Your task to perform on an android device: Open battery settings Image 0: 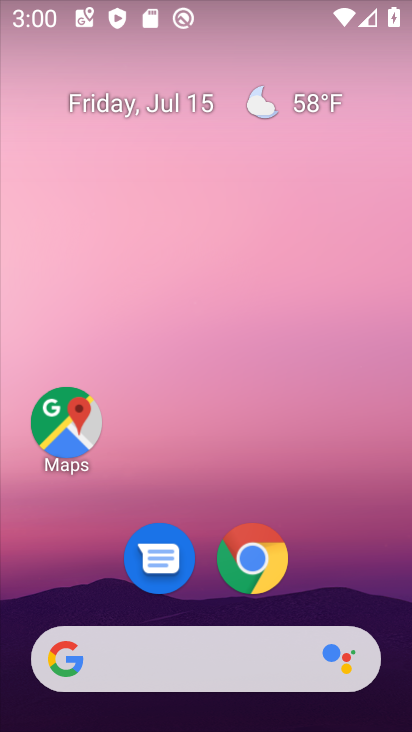
Step 0: drag from (358, 579) to (365, 98)
Your task to perform on an android device: Open battery settings Image 1: 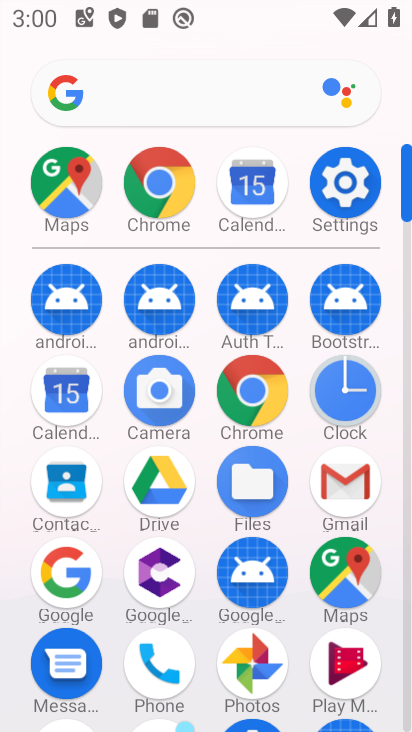
Step 1: click (353, 198)
Your task to perform on an android device: Open battery settings Image 2: 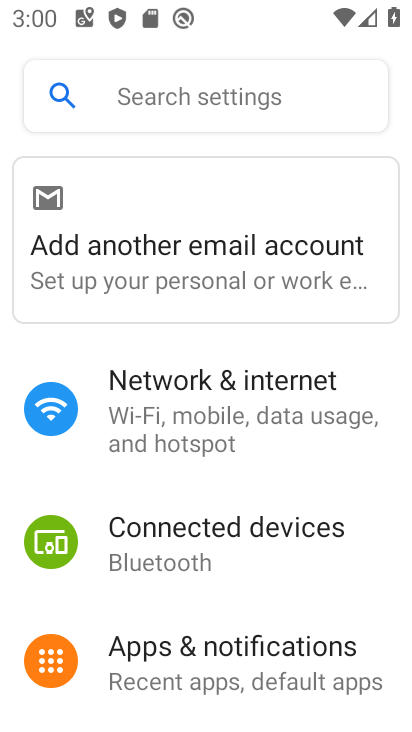
Step 2: drag from (380, 572) to (374, 442)
Your task to perform on an android device: Open battery settings Image 3: 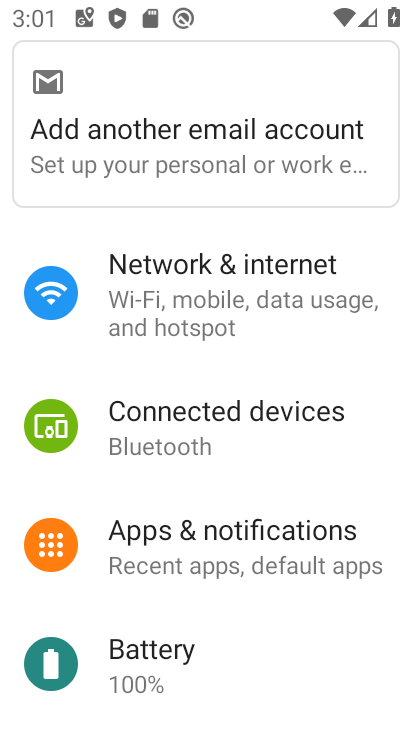
Step 3: drag from (385, 616) to (379, 453)
Your task to perform on an android device: Open battery settings Image 4: 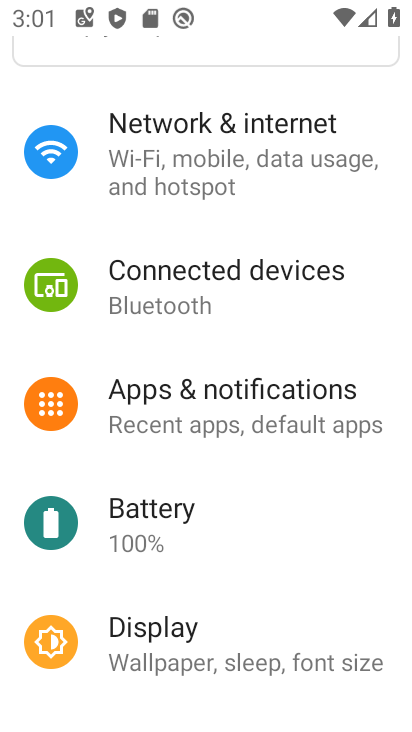
Step 4: drag from (366, 583) to (365, 476)
Your task to perform on an android device: Open battery settings Image 5: 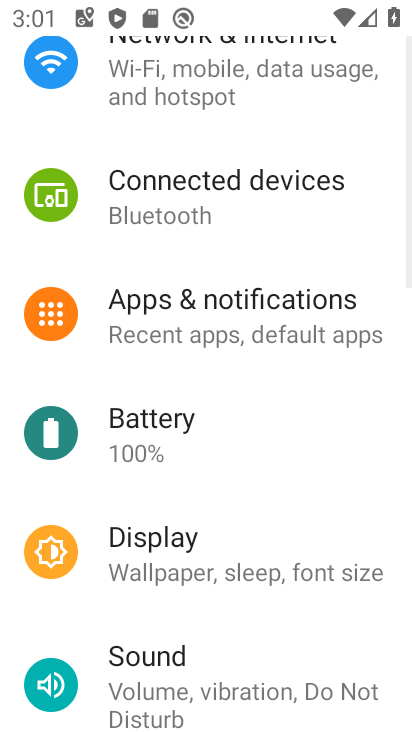
Step 5: drag from (374, 613) to (385, 467)
Your task to perform on an android device: Open battery settings Image 6: 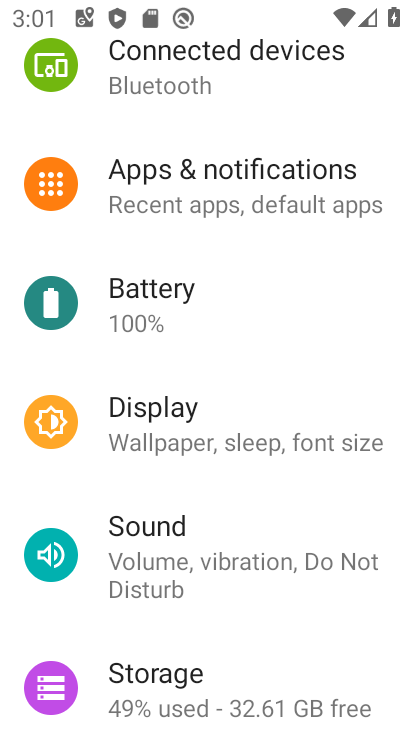
Step 6: drag from (376, 526) to (379, 437)
Your task to perform on an android device: Open battery settings Image 7: 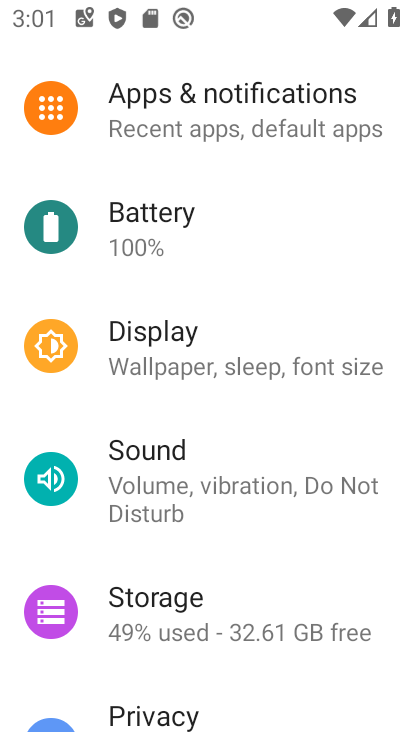
Step 7: click (313, 253)
Your task to perform on an android device: Open battery settings Image 8: 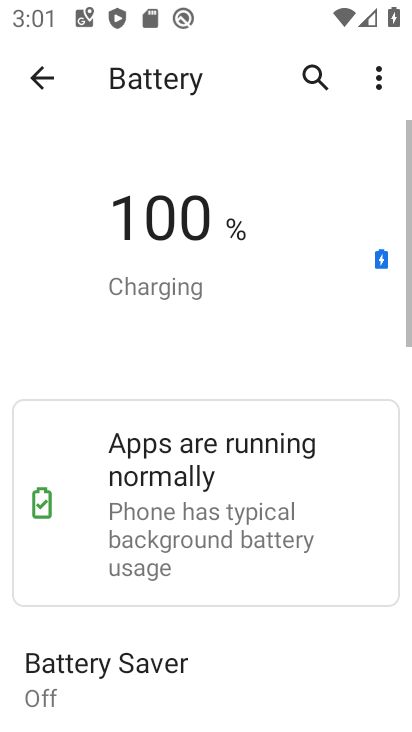
Step 8: task complete